Your task to perform on an android device: Show me popular videos on Youtube Image 0: 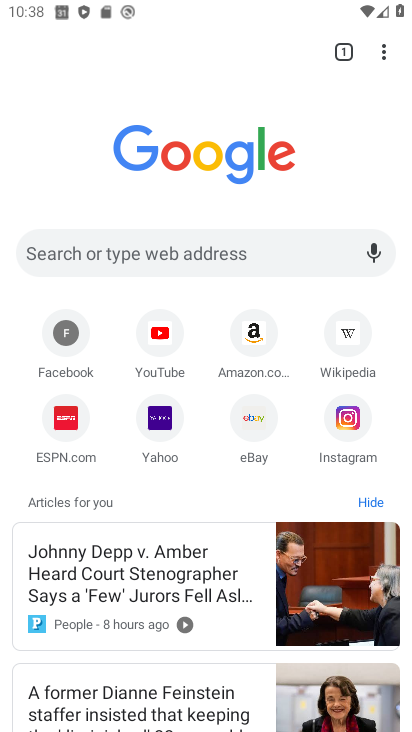
Step 0: press home button
Your task to perform on an android device: Show me popular videos on Youtube Image 1: 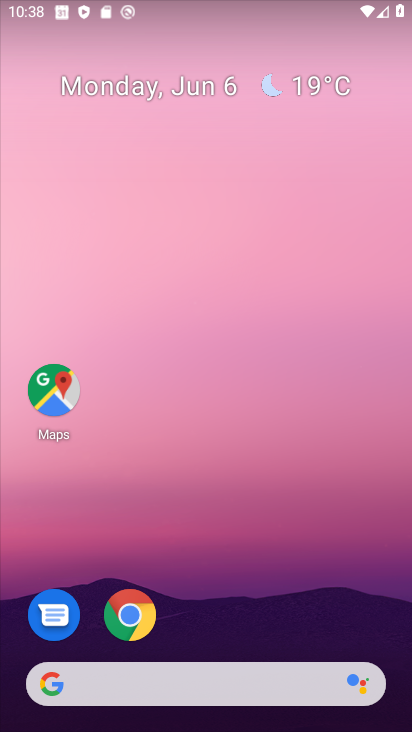
Step 1: click (291, 650)
Your task to perform on an android device: Show me popular videos on Youtube Image 2: 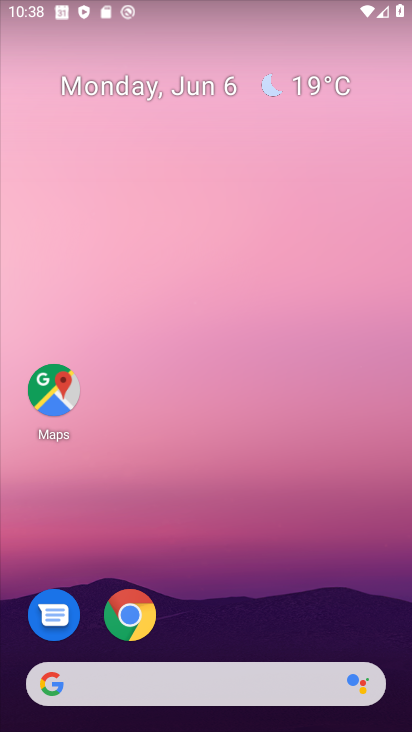
Step 2: drag from (291, 650) to (258, 80)
Your task to perform on an android device: Show me popular videos on Youtube Image 3: 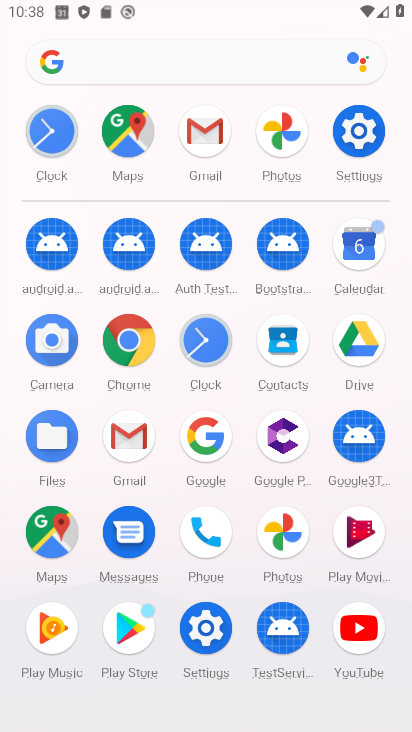
Step 3: click (368, 648)
Your task to perform on an android device: Show me popular videos on Youtube Image 4: 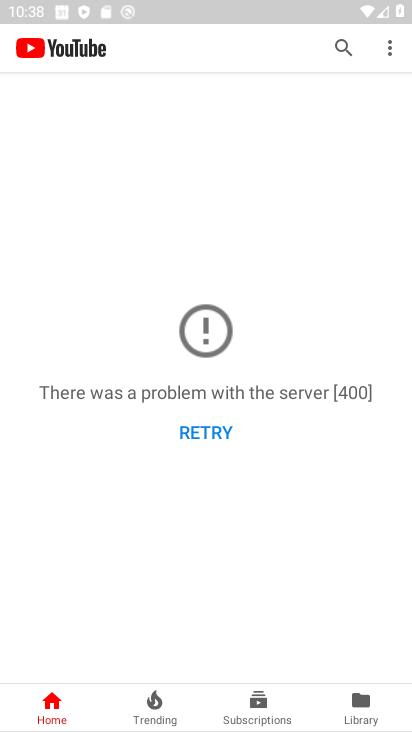
Step 4: task complete